Your task to perform on an android device: turn notification dots off Image 0: 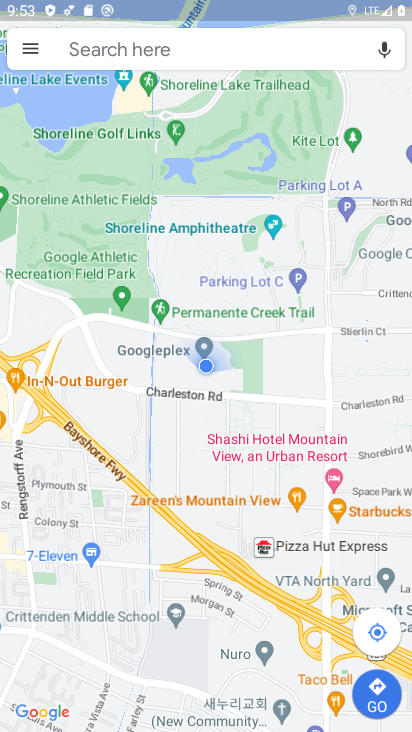
Step 0: drag from (188, 276) to (197, 229)
Your task to perform on an android device: turn notification dots off Image 1: 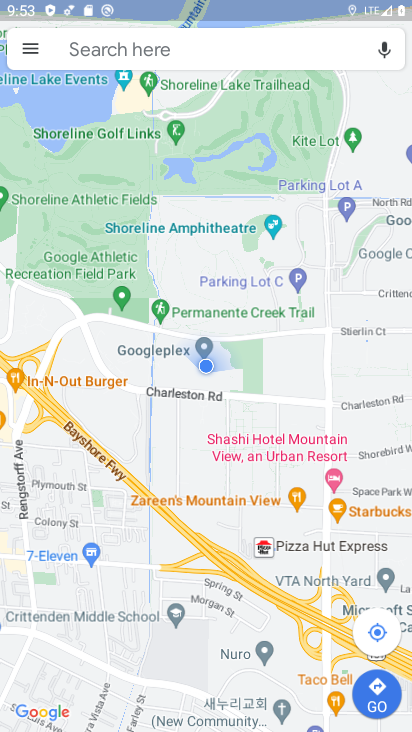
Step 1: drag from (281, 210) to (269, 556)
Your task to perform on an android device: turn notification dots off Image 2: 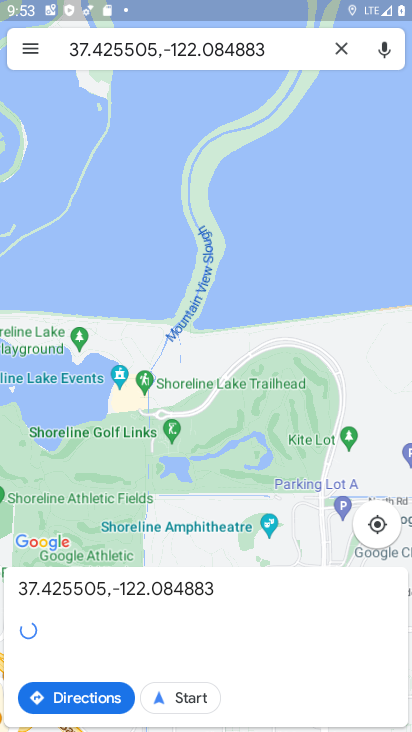
Step 2: press home button
Your task to perform on an android device: turn notification dots off Image 3: 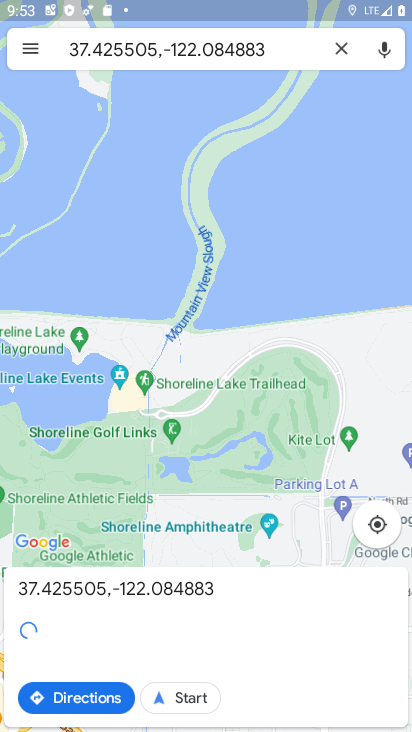
Step 3: press home button
Your task to perform on an android device: turn notification dots off Image 4: 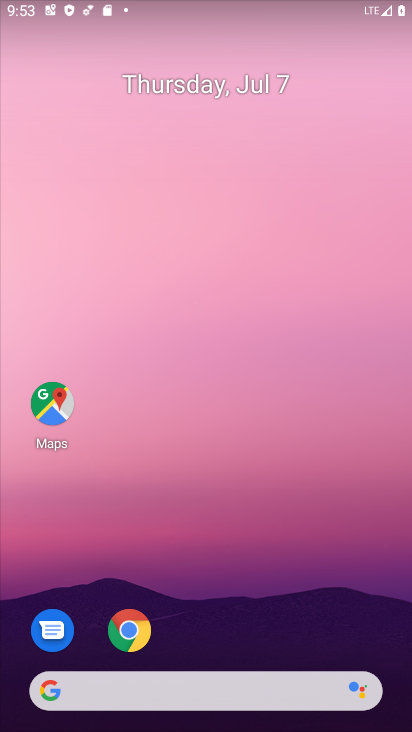
Step 4: drag from (162, 552) to (232, 147)
Your task to perform on an android device: turn notification dots off Image 5: 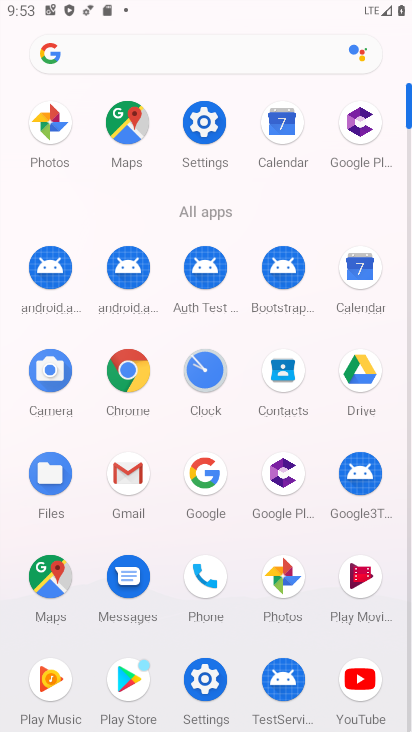
Step 5: click (201, 119)
Your task to perform on an android device: turn notification dots off Image 6: 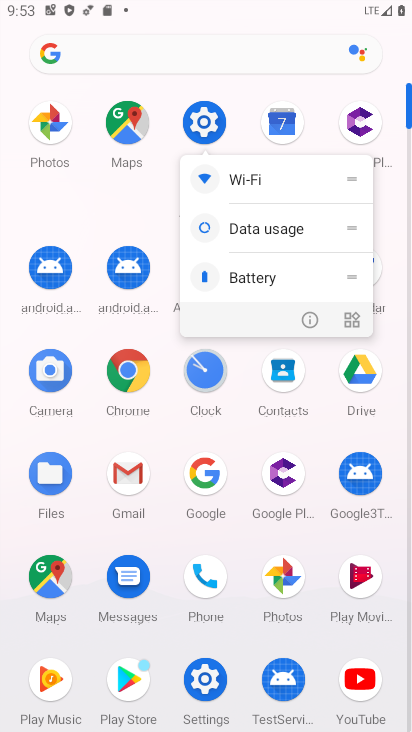
Step 6: click (303, 317)
Your task to perform on an android device: turn notification dots off Image 7: 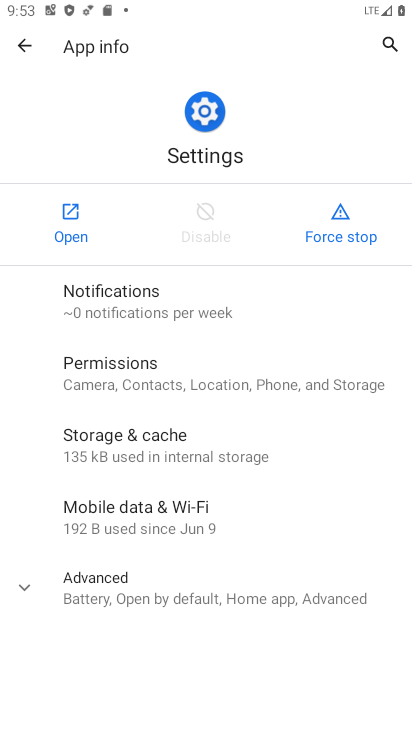
Step 7: click (66, 226)
Your task to perform on an android device: turn notification dots off Image 8: 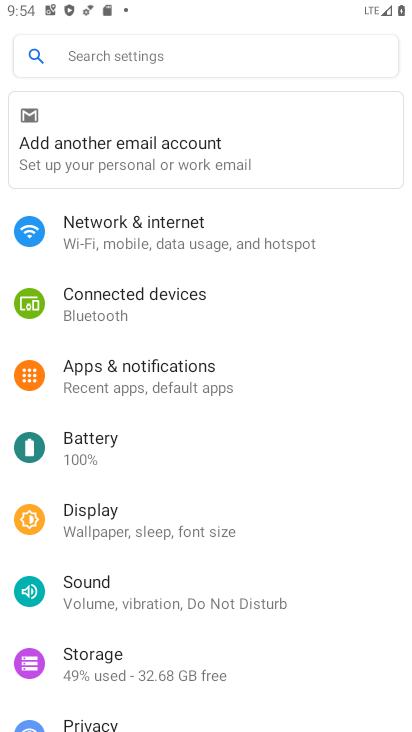
Step 8: click (168, 379)
Your task to perform on an android device: turn notification dots off Image 9: 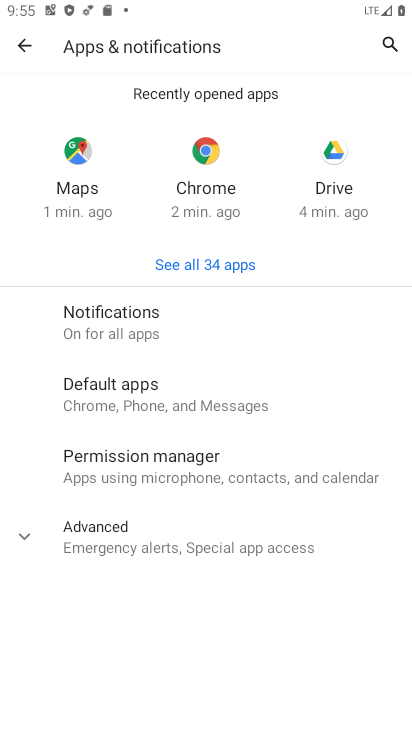
Step 9: click (155, 321)
Your task to perform on an android device: turn notification dots off Image 10: 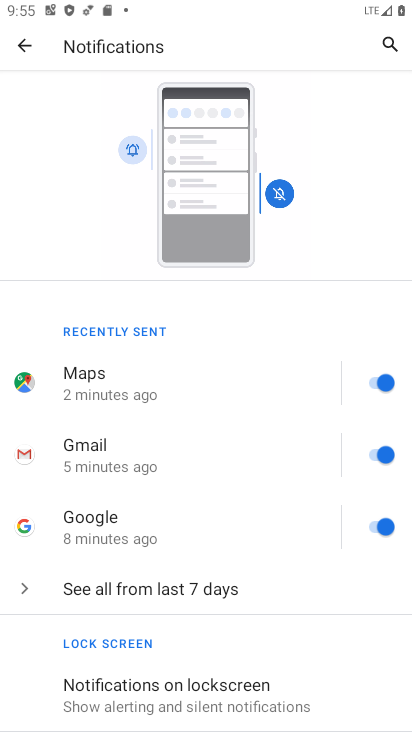
Step 10: drag from (238, 547) to (261, 263)
Your task to perform on an android device: turn notification dots off Image 11: 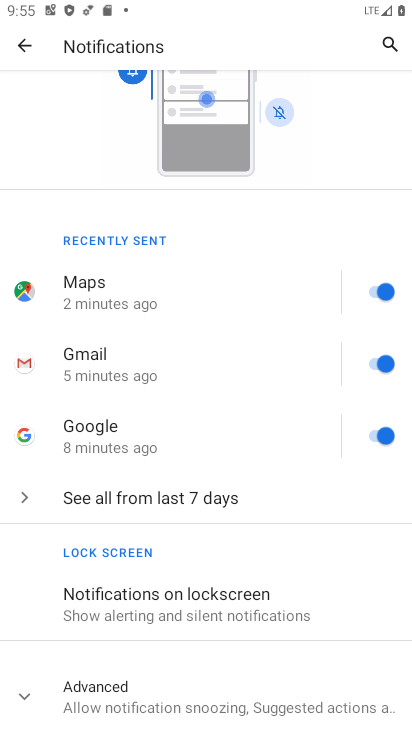
Step 11: click (88, 703)
Your task to perform on an android device: turn notification dots off Image 12: 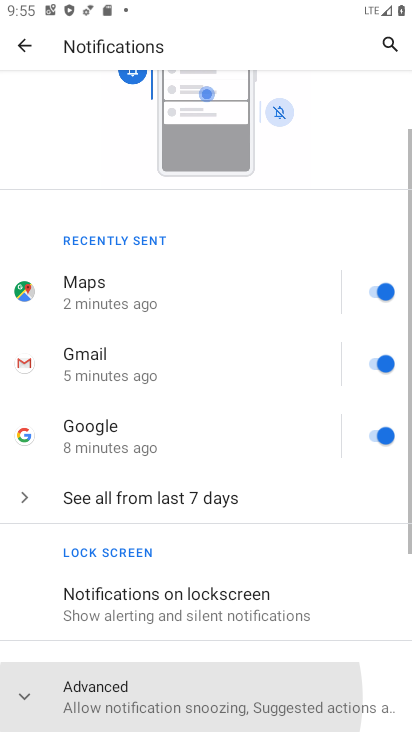
Step 12: drag from (141, 604) to (230, 161)
Your task to perform on an android device: turn notification dots off Image 13: 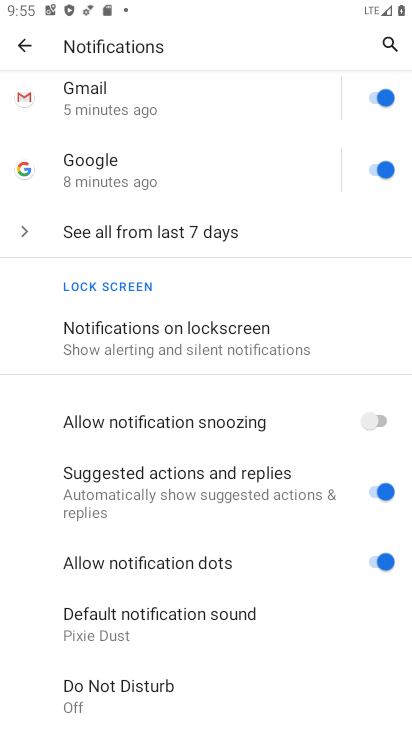
Step 13: click (377, 561)
Your task to perform on an android device: turn notification dots off Image 14: 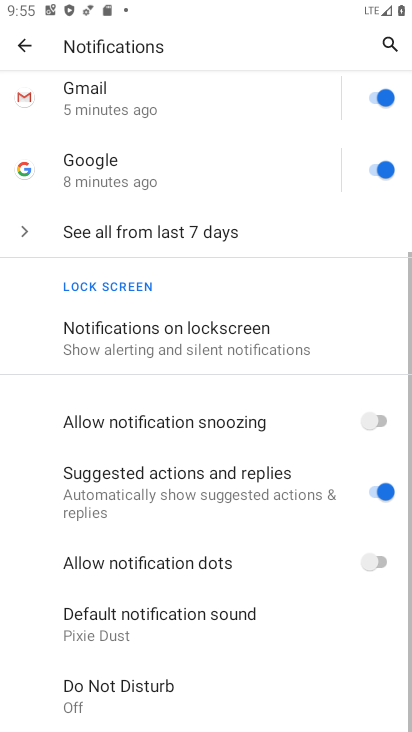
Step 14: task complete